Your task to perform on an android device: Go to sound settings Image 0: 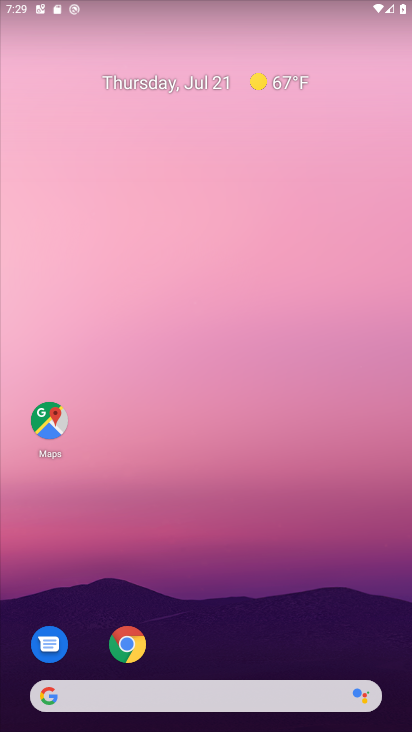
Step 0: drag from (221, 644) to (241, 213)
Your task to perform on an android device: Go to sound settings Image 1: 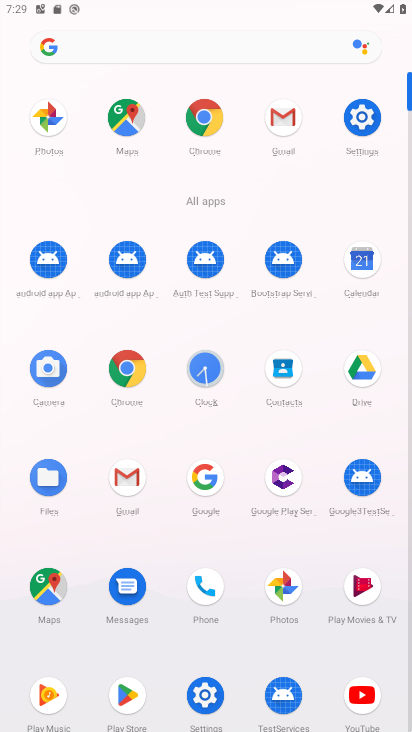
Step 1: click (209, 695)
Your task to perform on an android device: Go to sound settings Image 2: 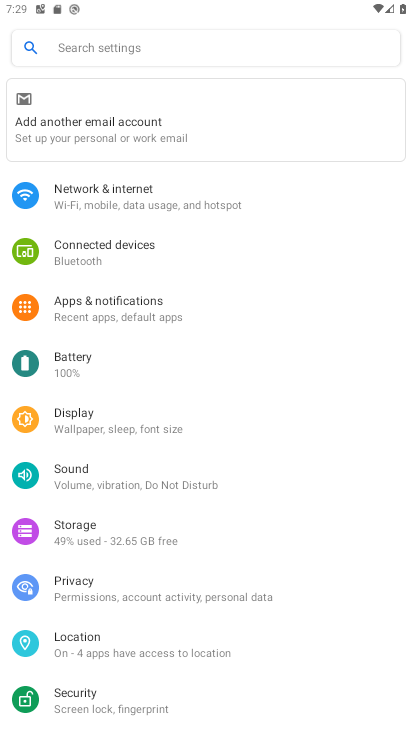
Step 2: click (110, 486)
Your task to perform on an android device: Go to sound settings Image 3: 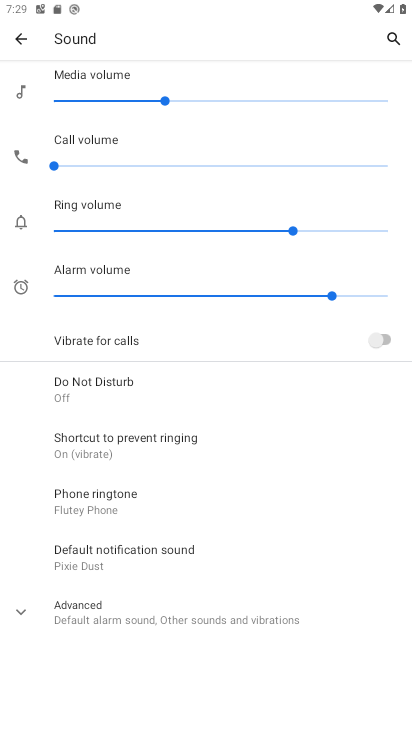
Step 3: task complete